Your task to perform on an android device: change the clock display to analog Image 0: 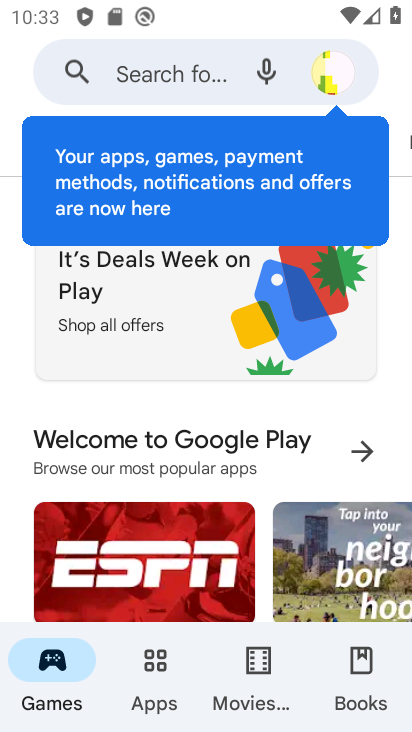
Step 0: press home button
Your task to perform on an android device: change the clock display to analog Image 1: 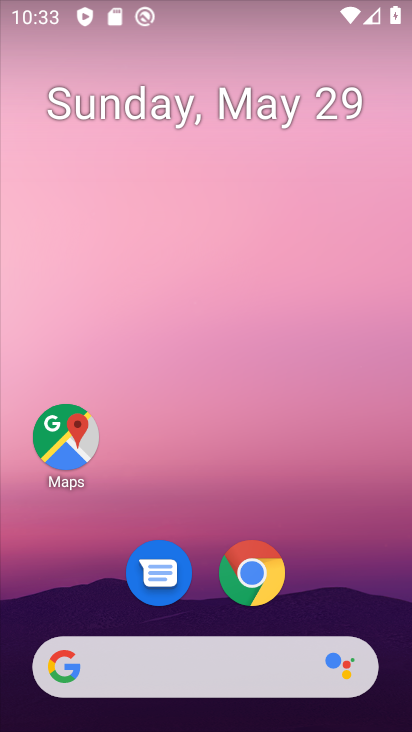
Step 1: drag from (342, 396) to (327, 145)
Your task to perform on an android device: change the clock display to analog Image 2: 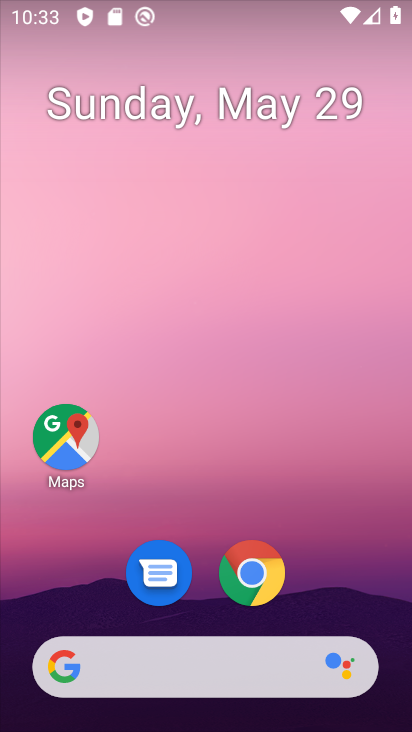
Step 2: drag from (364, 575) to (391, 51)
Your task to perform on an android device: change the clock display to analog Image 3: 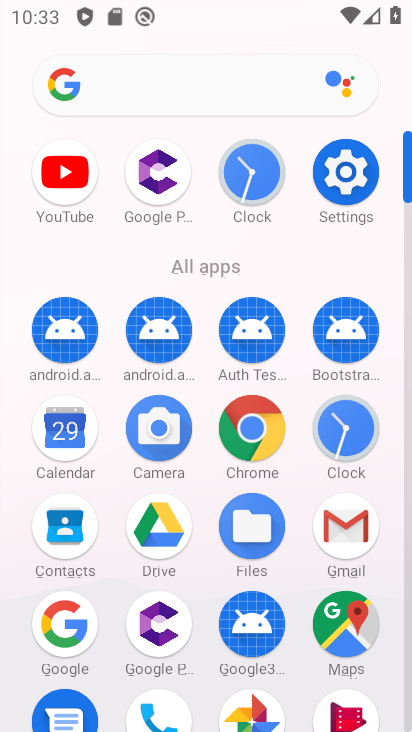
Step 3: click (237, 172)
Your task to perform on an android device: change the clock display to analog Image 4: 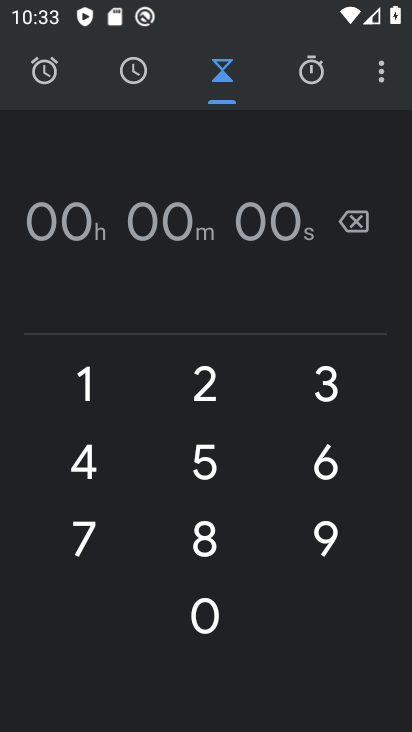
Step 4: click (378, 74)
Your task to perform on an android device: change the clock display to analog Image 5: 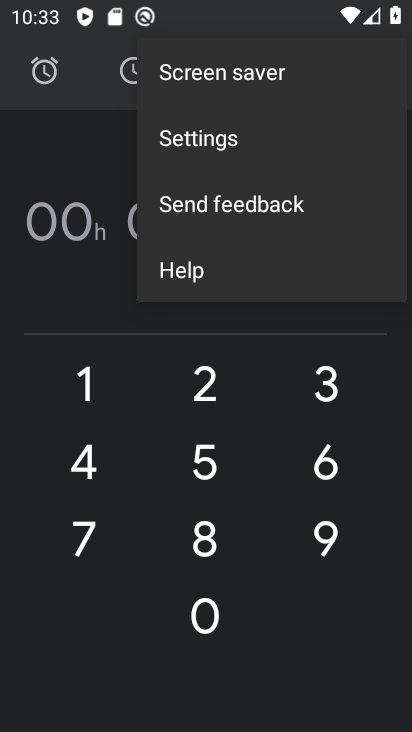
Step 5: click (208, 141)
Your task to perform on an android device: change the clock display to analog Image 6: 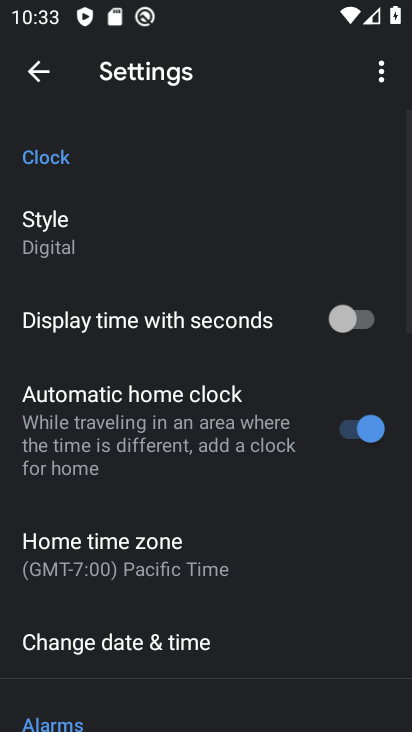
Step 6: click (73, 230)
Your task to perform on an android device: change the clock display to analog Image 7: 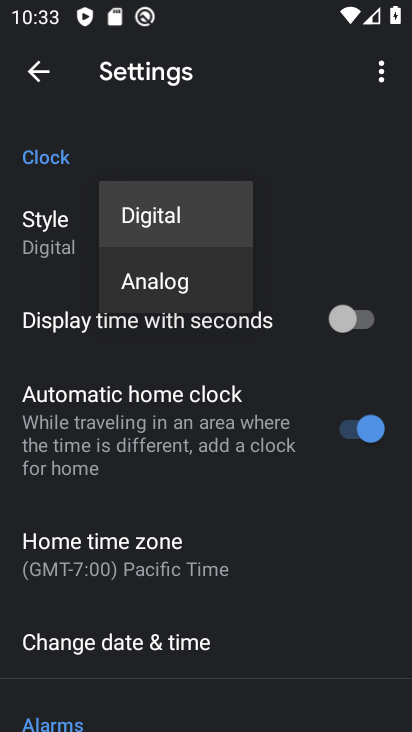
Step 7: click (155, 277)
Your task to perform on an android device: change the clock display to analog Image 8: 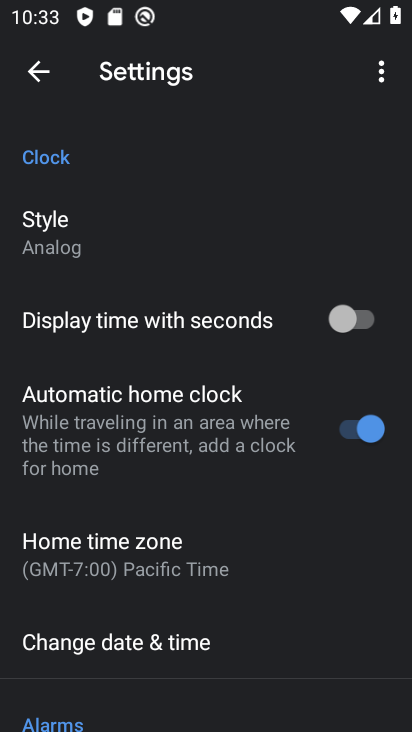
Step 8: task complete